Your task to perform on an android device: Check the settings for the Google Maps app Image 0: 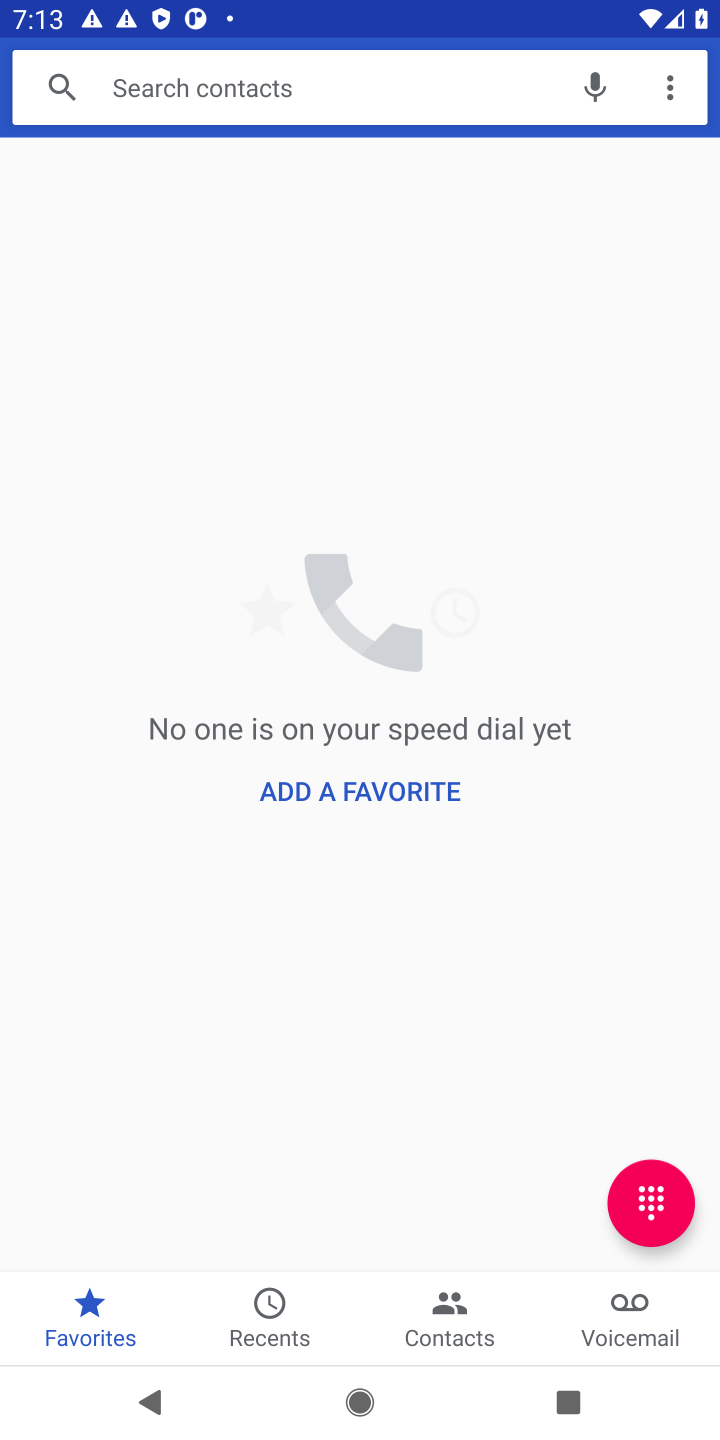
Step 0: press home button
Your task to perform on an android device: Check the settings for the Google Maps app Image 1: 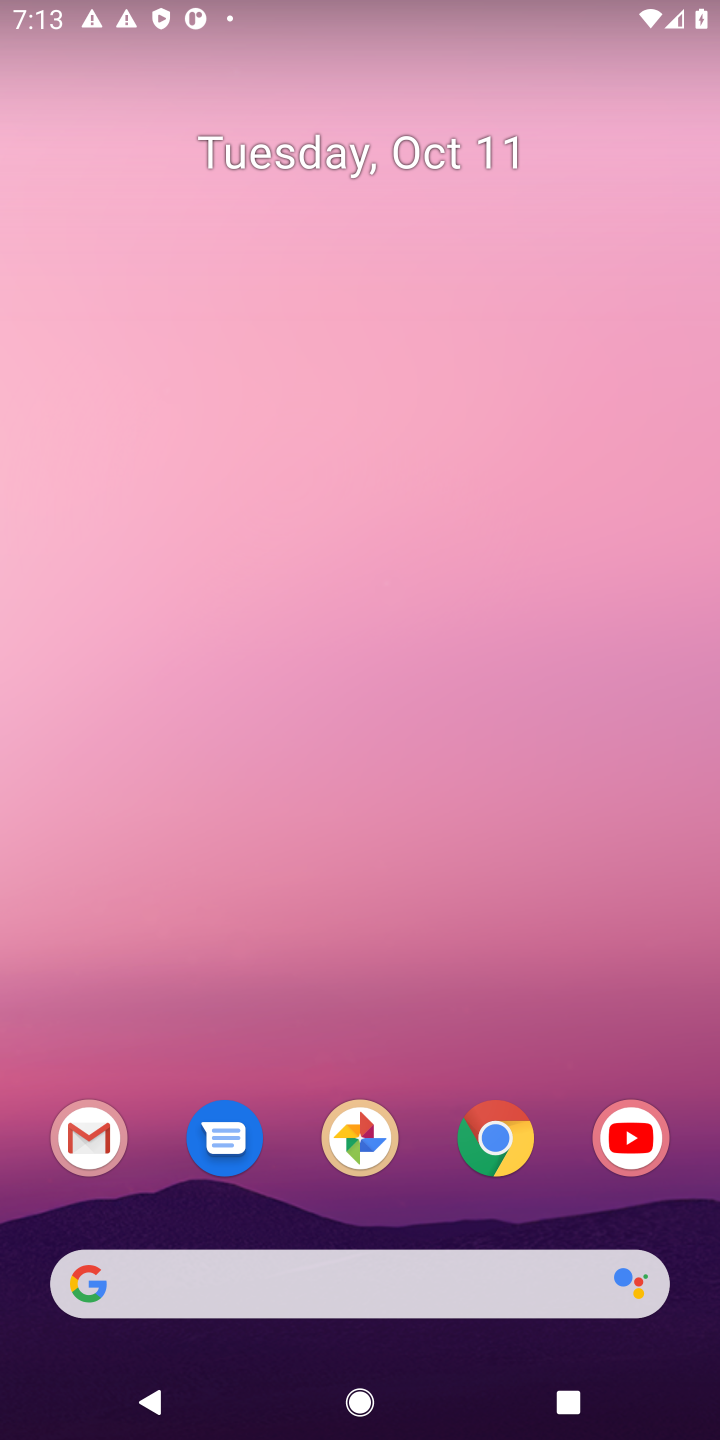
Step 1: drag from (340, 1019) to (331, 415)
Your task to perform on an android device: Check the settings for the Google Maps app Image 2: 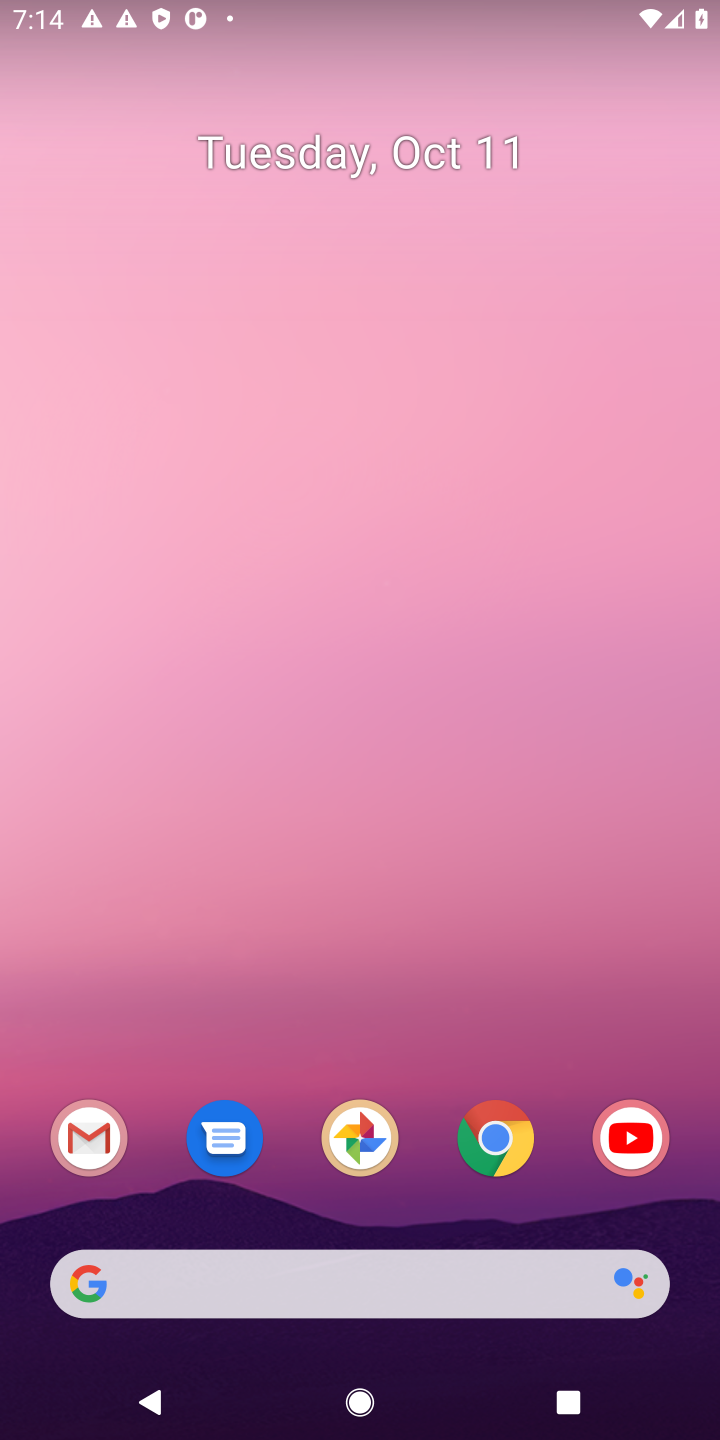
Step 2: drag from (423, 1028) to (362, 579)
Your task to perform on an android device: Check the settings for the Google Maps app Image 3: 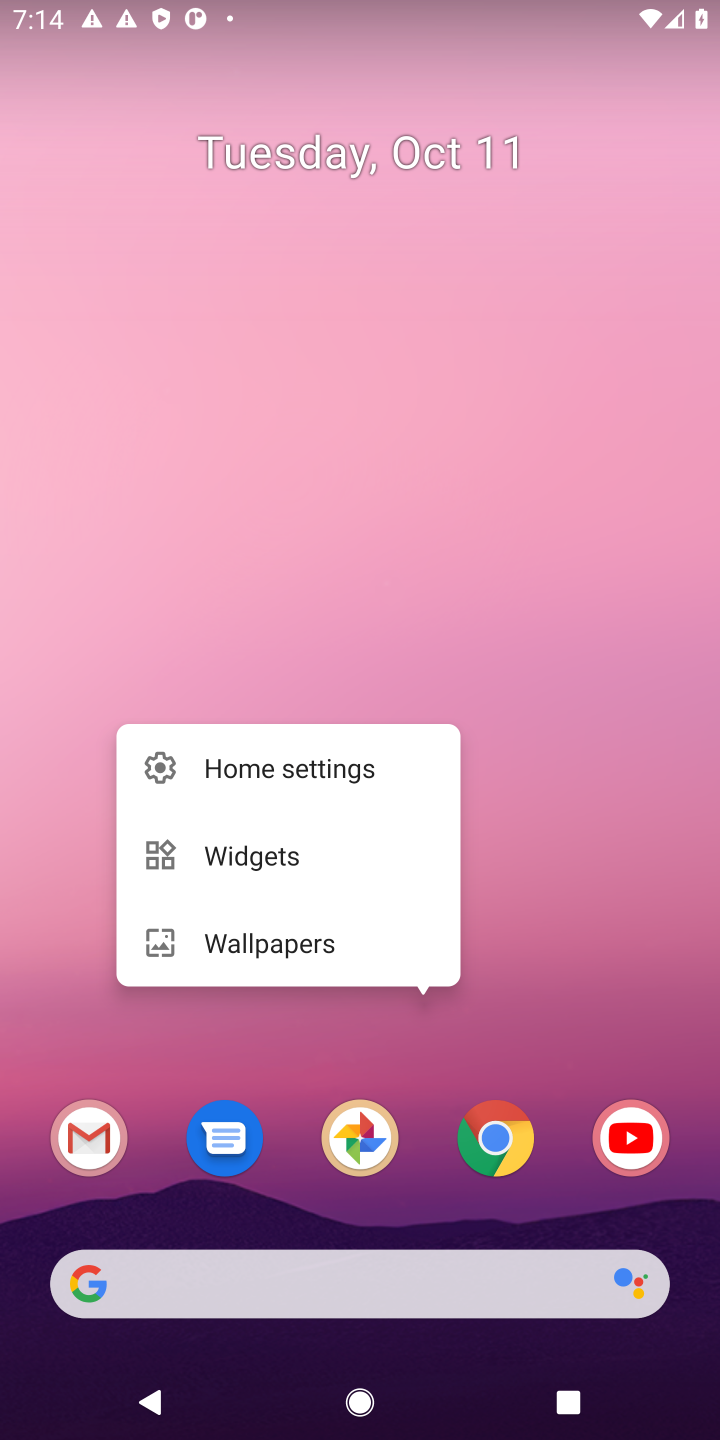
Step 3: click (295, 615)
Your task to perform on an android device: Check the settings for the Google Maps app Image 4: 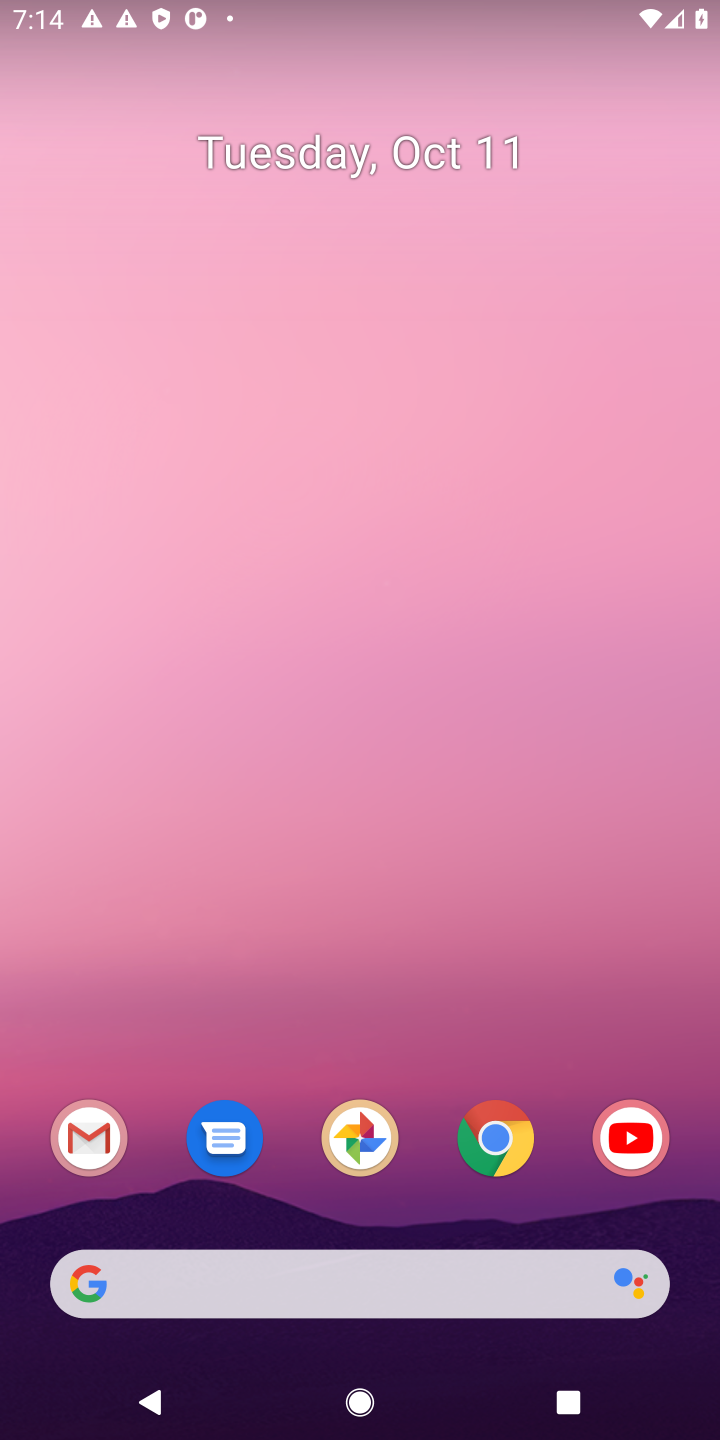
Step 4: drag from (375, 804) to (330, 56)
Your task to perform on an android device: Check the settings for the Google Maps app Image 5: 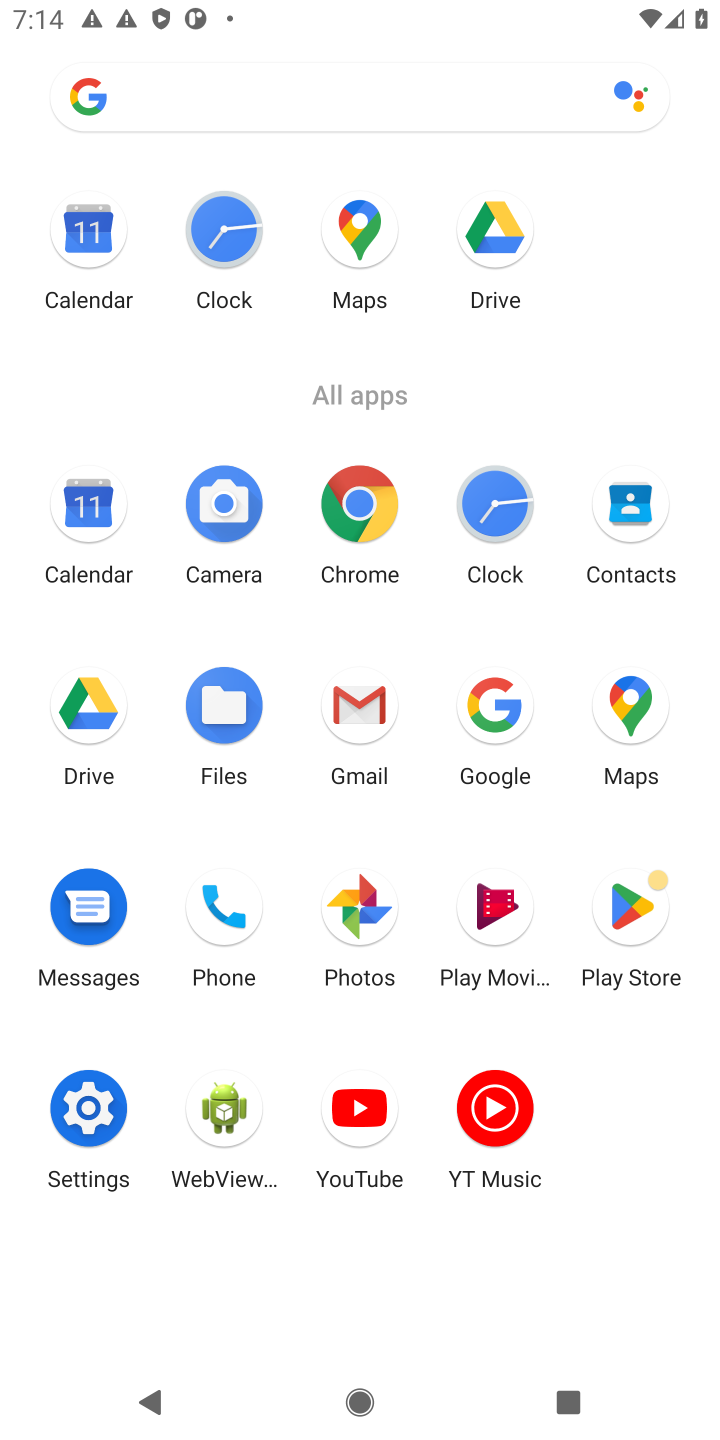
Step 5: click (347, 231)
Your task to perform on an android device: Check the settings for the Google Maps app Image 6: 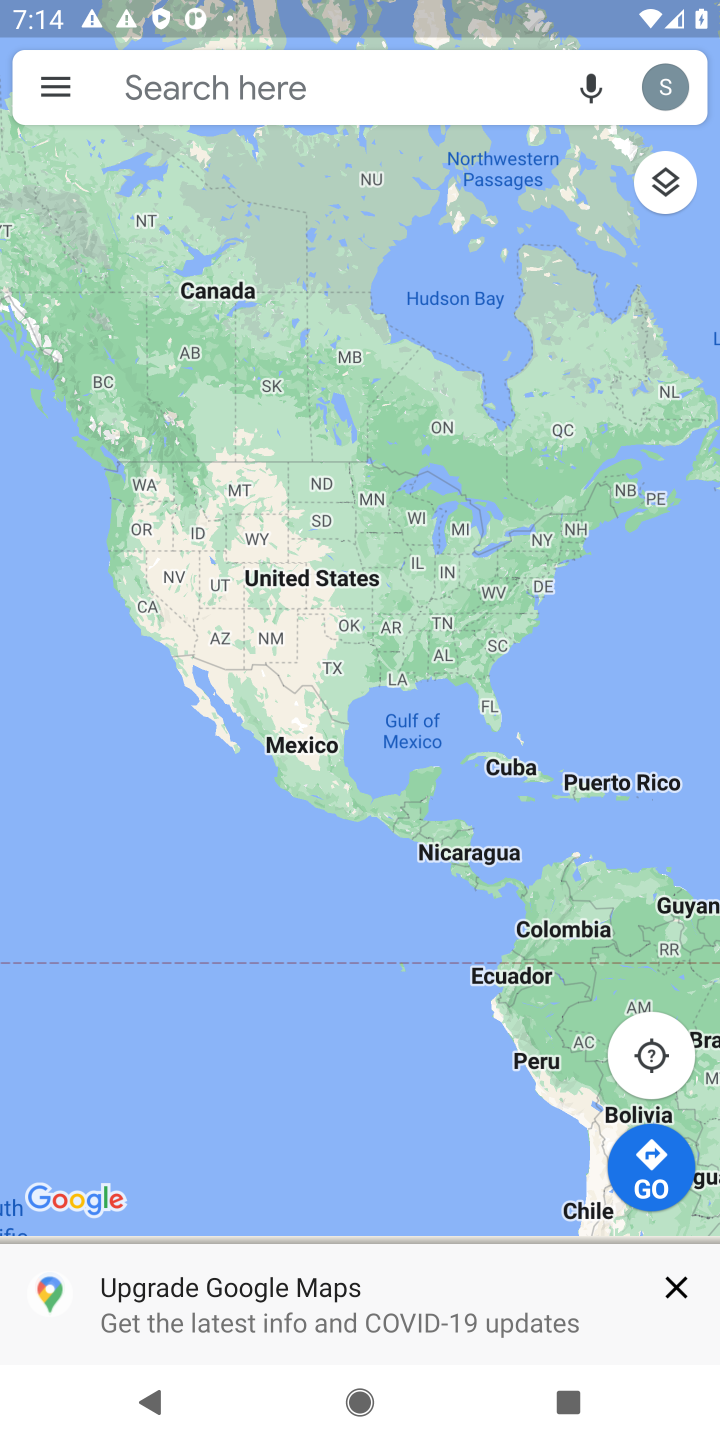
Step 6: click (46, 85)
Your task to perform on an android device: Check the settings for the Google Maps app Image 7: 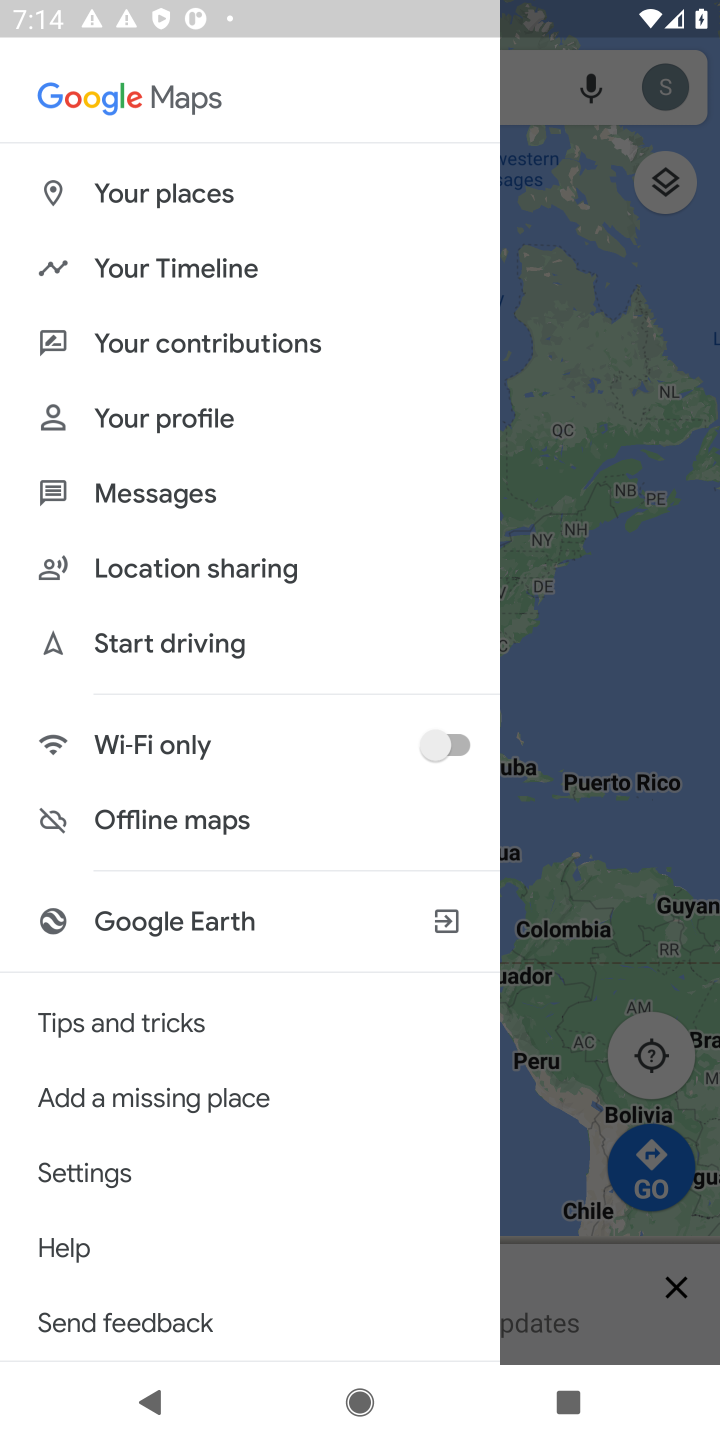
Step 7: click (73, 1170)
Your task to perform on an android device: Check the settings for the Google Maps app Image 8: 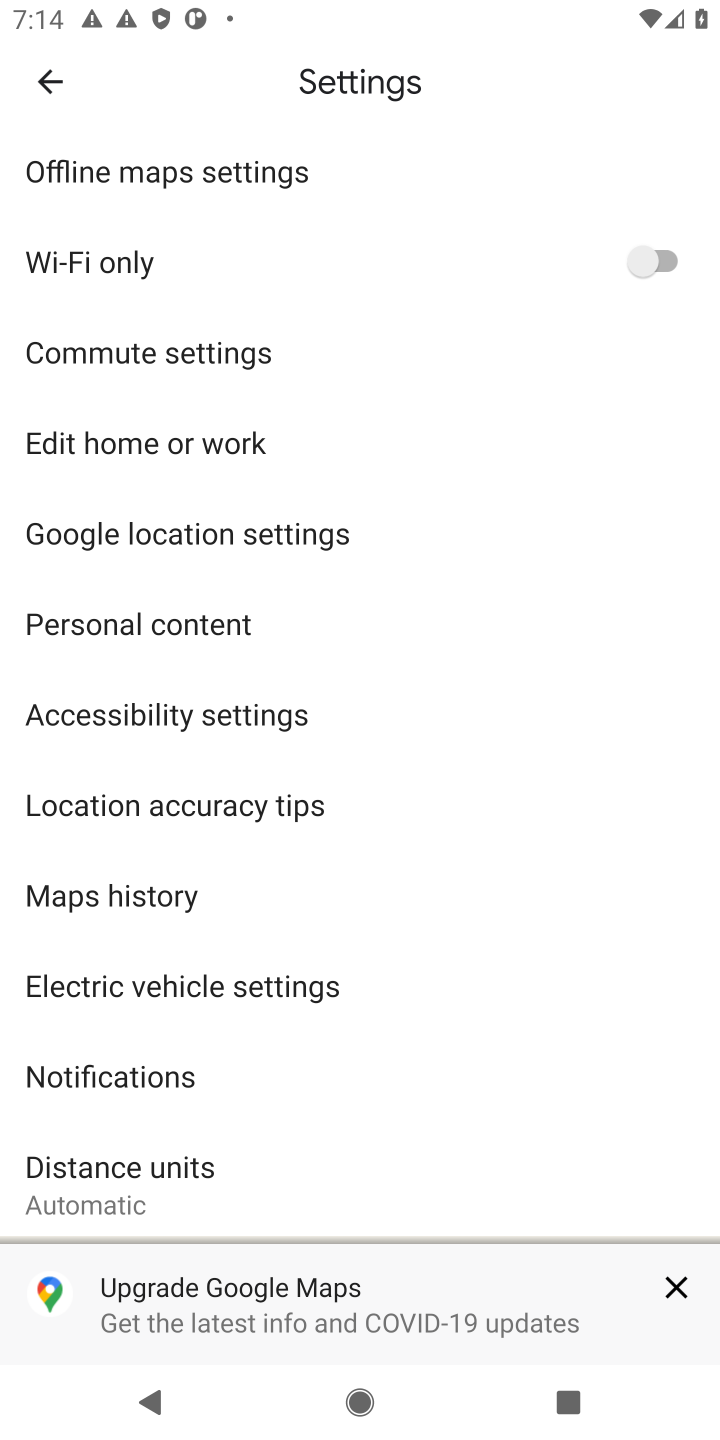
Step 8: task complete